Your task to perform on an android device: check out phone information Image 0: 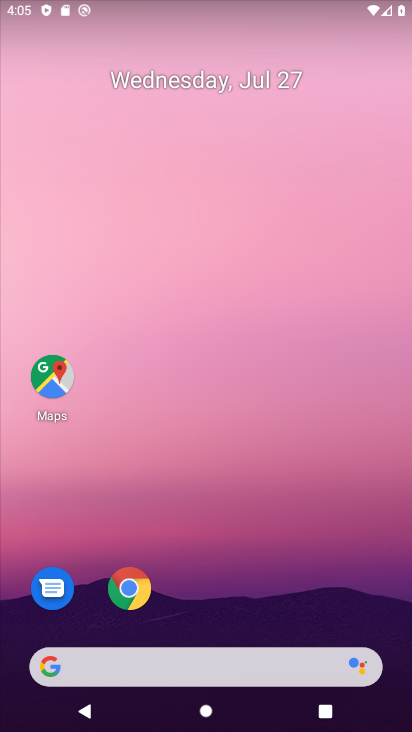
Step 0: drag from (241, 711) to (295, 206)
Your task to perform on an android device: check out phone information Image 1: 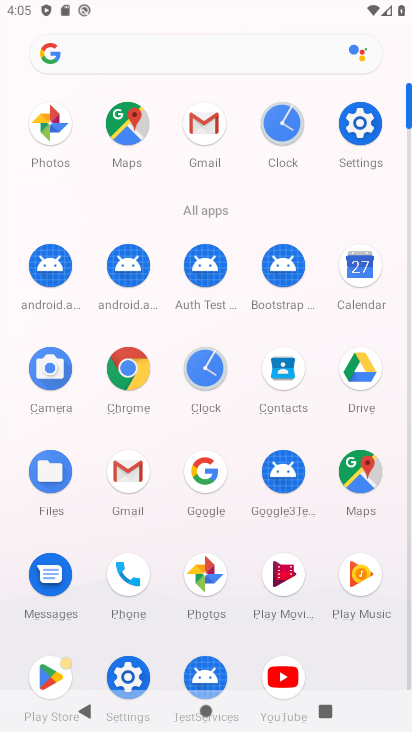
Step 1: click (372, 119)
Your task to perform on an android device: check out phone information Image 2: 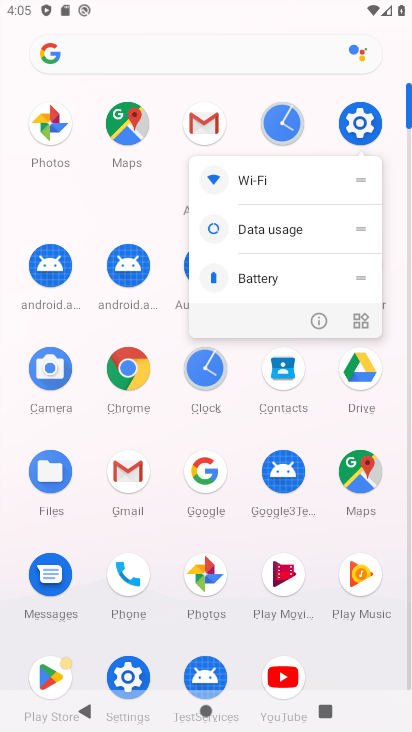
Step 2: click (369, 117)
Your task to perform on an android device: check out phone information Image 3: 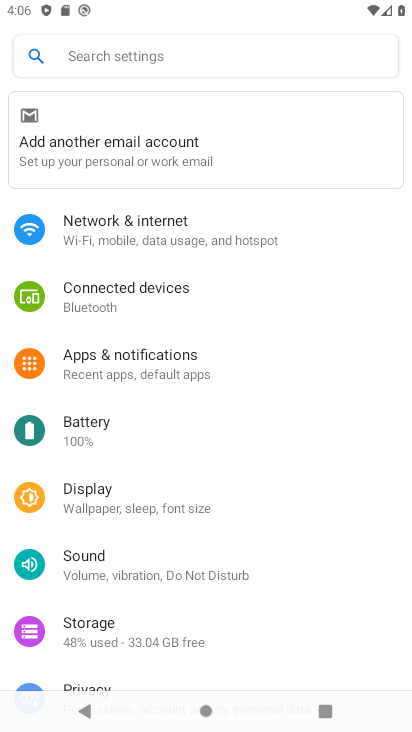
Step 3: drag from (111, 657) to (116, 286)
Your task to perform on an android device: check out phone information Image 4: 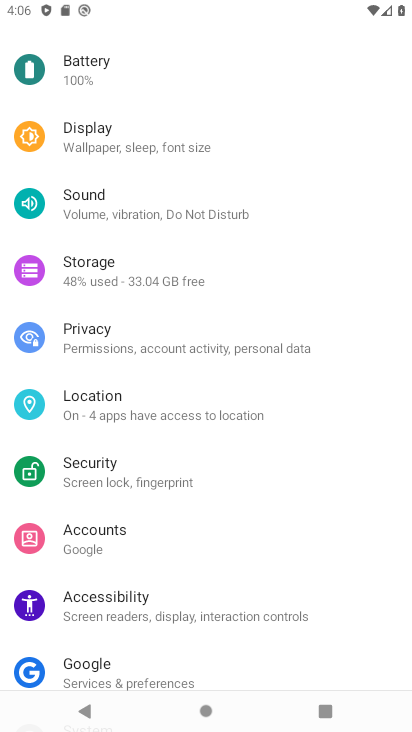
Step 4: drag from (109, 640) to (109, 431)
Your task to perform on an android device: check out phone information Image 5: 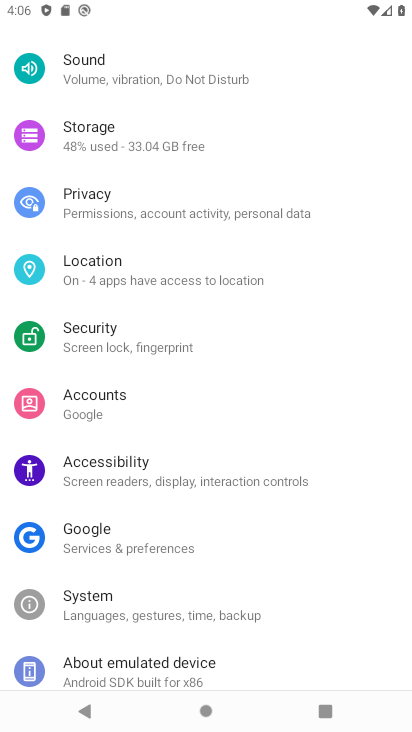
Step 5: click (134, 673)
Your task to perform on an android device: check out phone information Image 6: 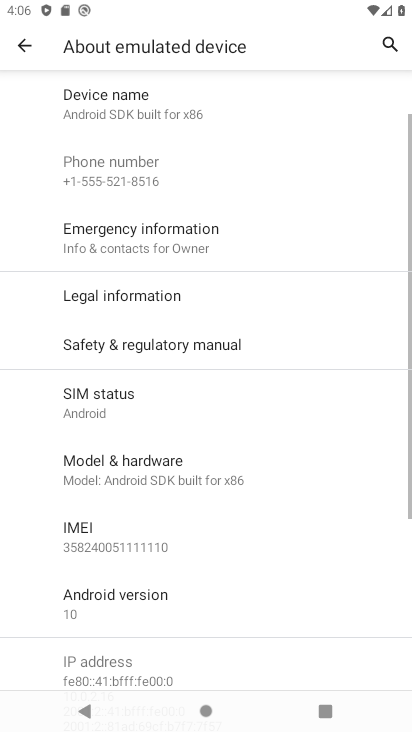
Step 6: task complete